Your task to perform on an android device: turn off priority inbox in the gmail app Image 0: 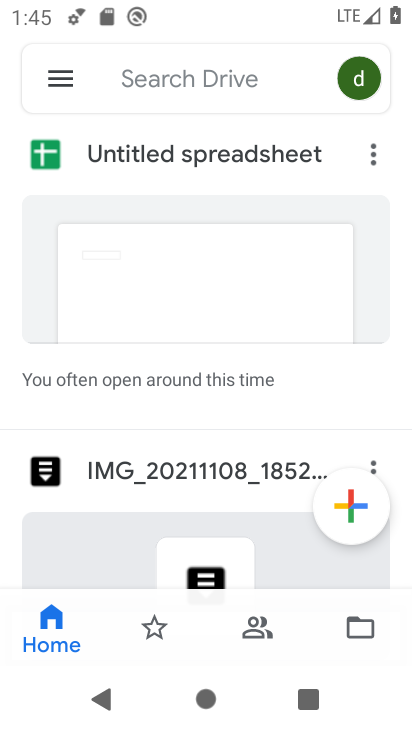
Step 0: press home button
Your task to perform on an android device: turn off priority inbox in the gmail app Image 1: 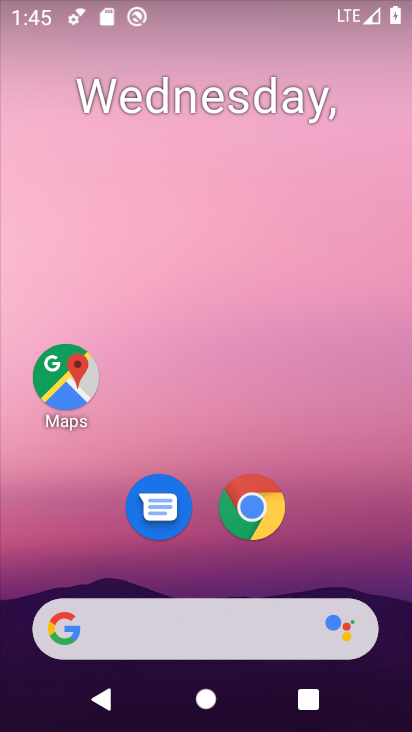
Step 1: drag from (302, 568) to (327, 44)
Your task to perform on an android device: turn off priority inbox in the gmail app Image 2: 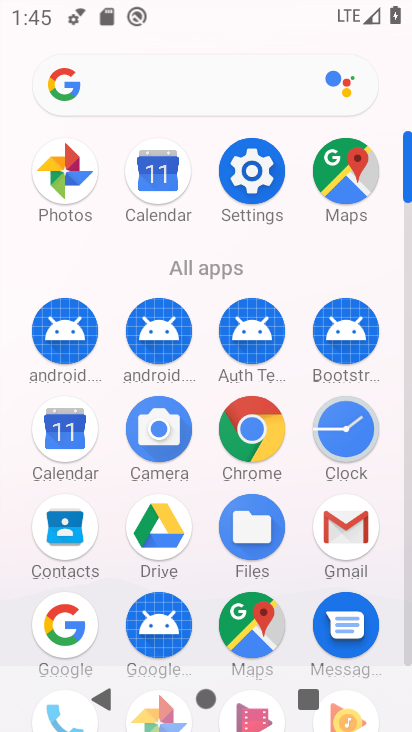
Step 2: click (324, 533)
Your task to perform on an android device: turn off priority inbox in the gmail app Image 3: 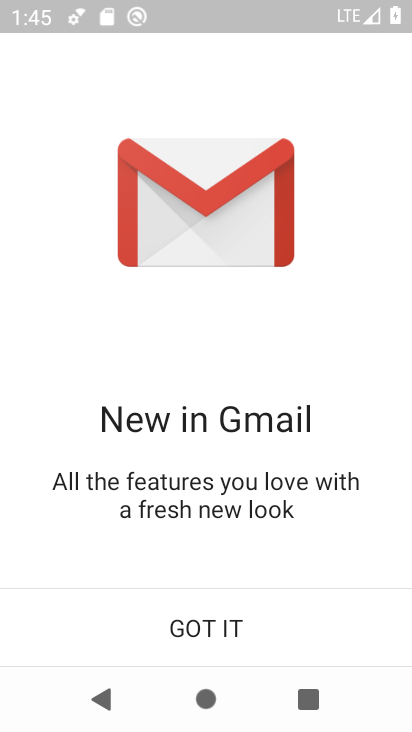
Step 3: click (201, 614)
Your task to perform on an android device: turn off priority inbox in the gmail app Image 4: 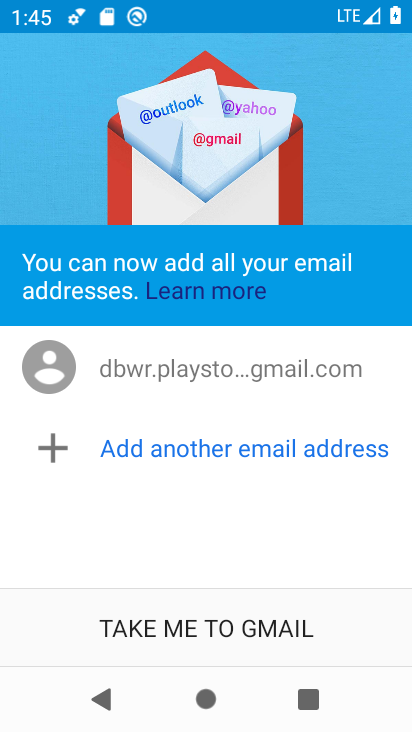
Step 4: click (197, 611)
Your task to perform on an android device: turn off priority inbox in the gmail app Image 5: 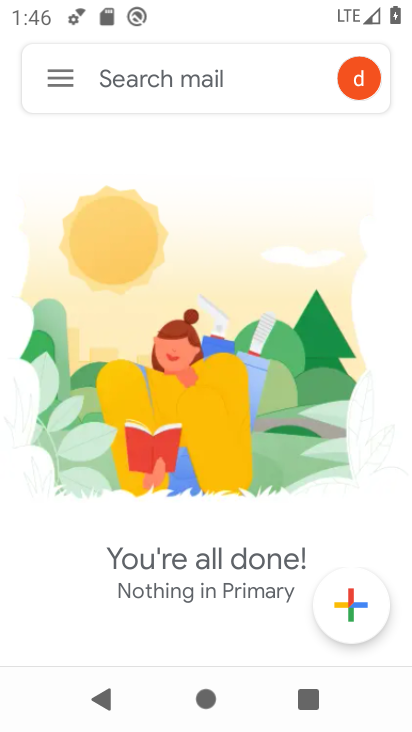
Step 5: click (56, 81)
Your task to perform on an android device: turn off priority inbox in the gmail app Image 6: 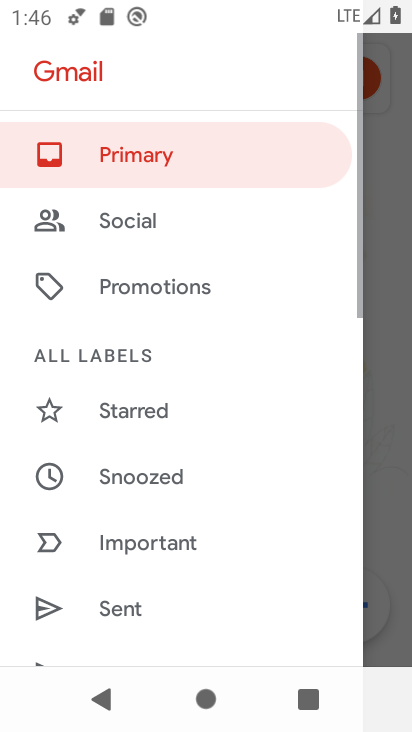
Step 6: drag from (211, 513) to (218, 267)
Your task to perform on an android device: turn off priority inbox in the gmail app Image 7: 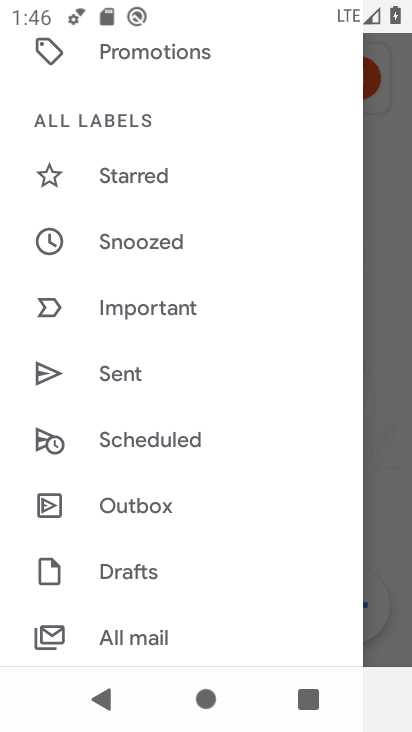
Step 7: drag from (189, 559) to (195, 345)
Your task to perform on an android device: turn off priority inbox in the gmail app Image 8: 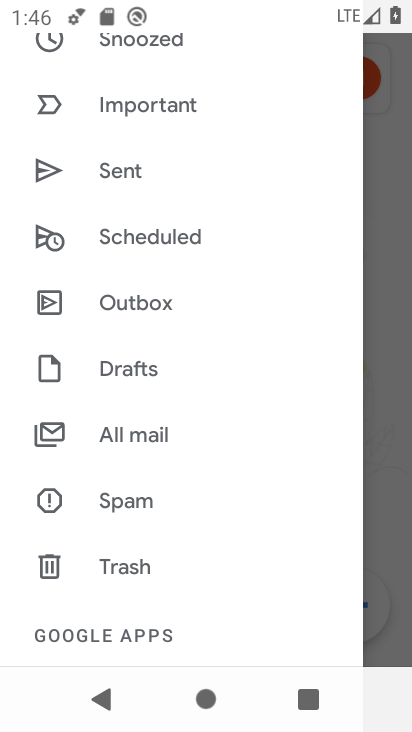
Step 8: drag from (191, 580) to (194, 393)
Your task to perform on an android device: turn off priority inbox in the gmail app Image 9: 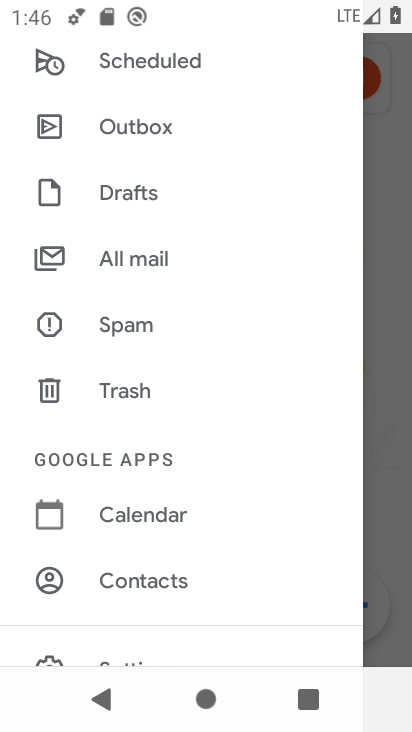
Step 9: drag from (145, 570) to (168, 428)
Your task to perform on an android device: turn off priority inbox in the gmail app Image 10: 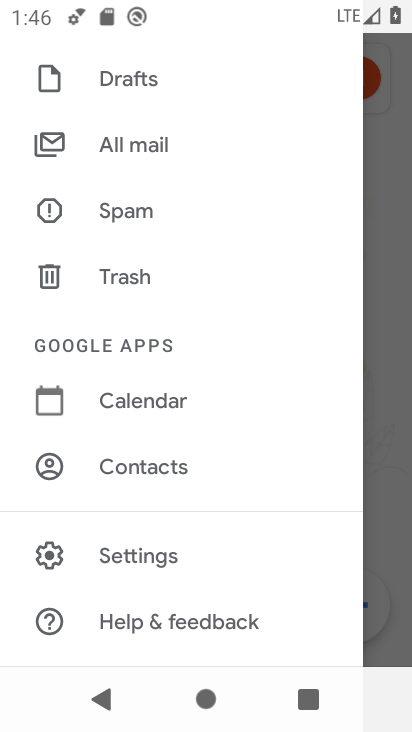
Step 10: click (174, 551)
Your task to perform on an android device: turn off priority inbox in the gmail app Image 11: 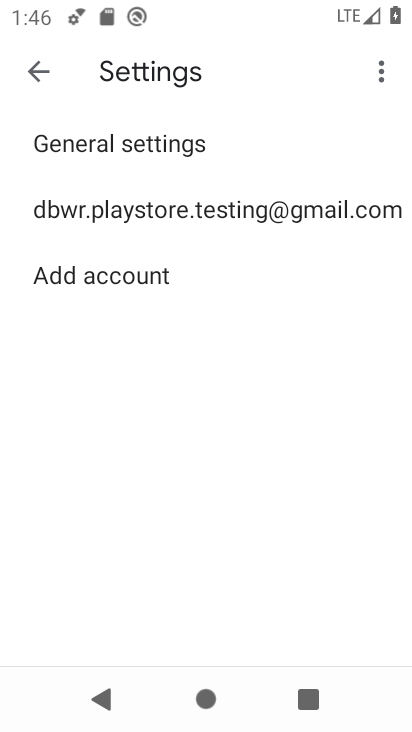
Step 11: click (163, 203)
Your task to perform on an android device: turn off priority inbox in the gmail app Image 12: 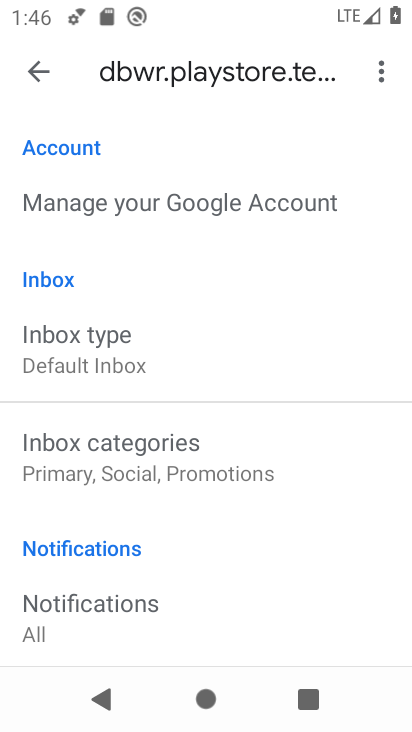
Step 12: click (91, 369)
Your task to perform on an android device: turn off priority inbox in the gmail app Image 13: 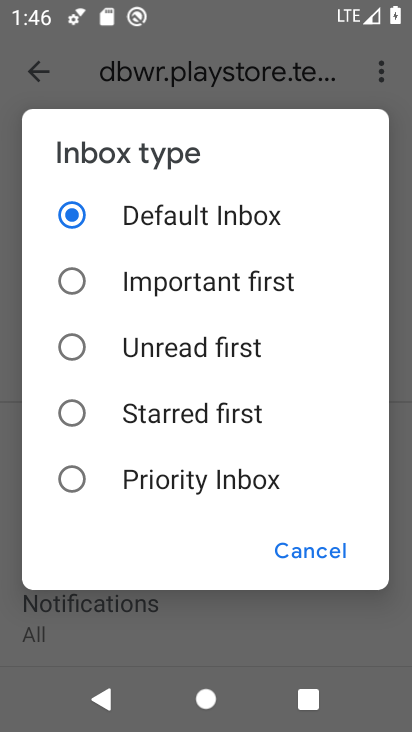
Step 13: click (101, 202)
Your task to perform on an android device: turn off priority inbox in the gmail app Image 14: 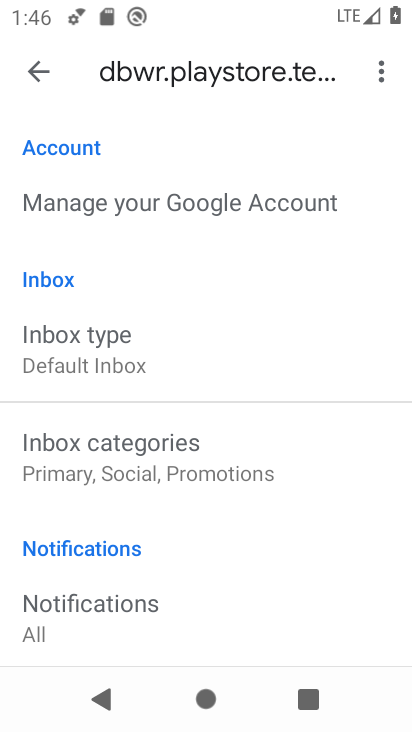
Step 14: task complete